Your task to perform on an android device: open chrome privacy settings Image 0: 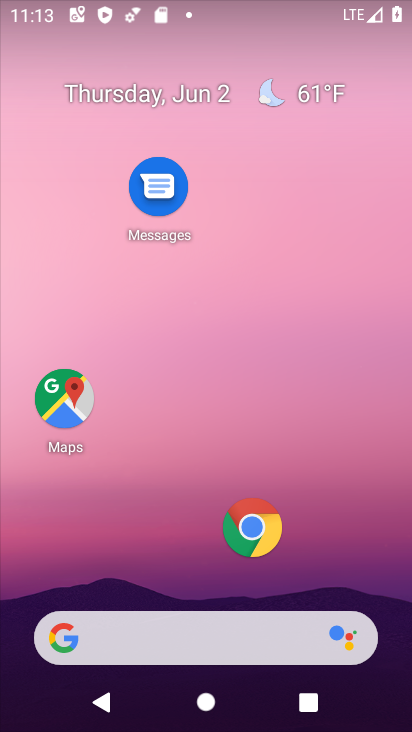
Step 0: click (251, 525)
Your task to perform on an android device: open chrome privacy settings Image 1: 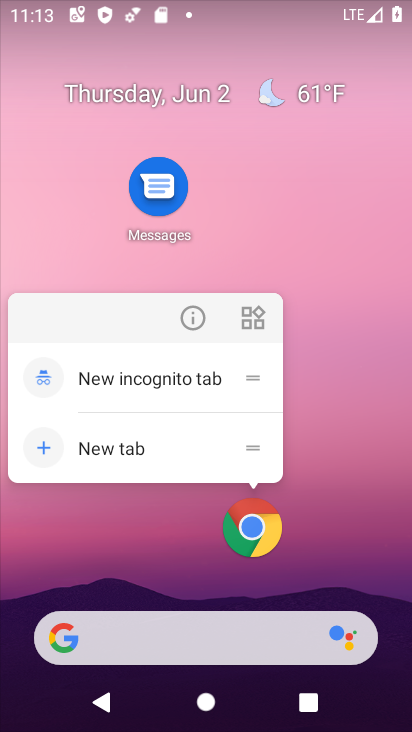
Step 1: click (252, 520)
Your task to perform on an android device: open chrome privacy settings Image 2: 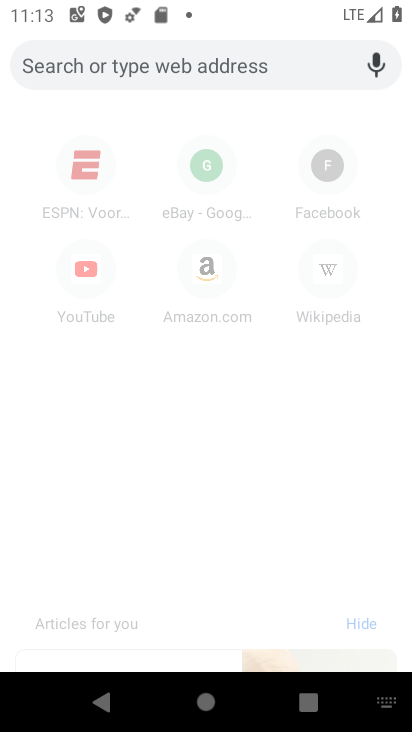
Step 2: press back button
Your task to perform on an android device: open chrome privacy settings Image 3: 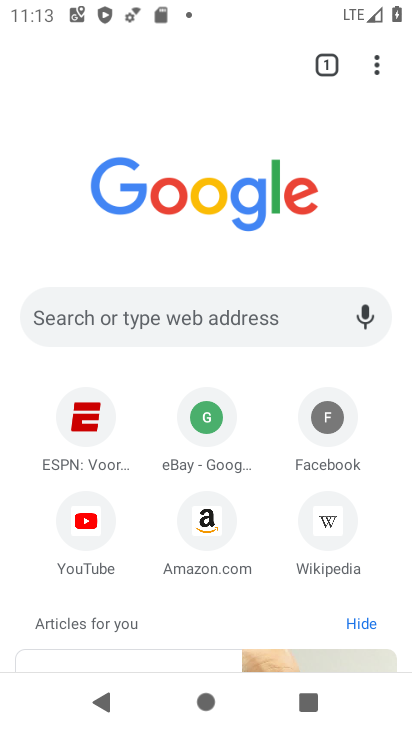
Step 3: click (379, 57)
Your task to perform on an android device: open chrome privacy settings Image 4: 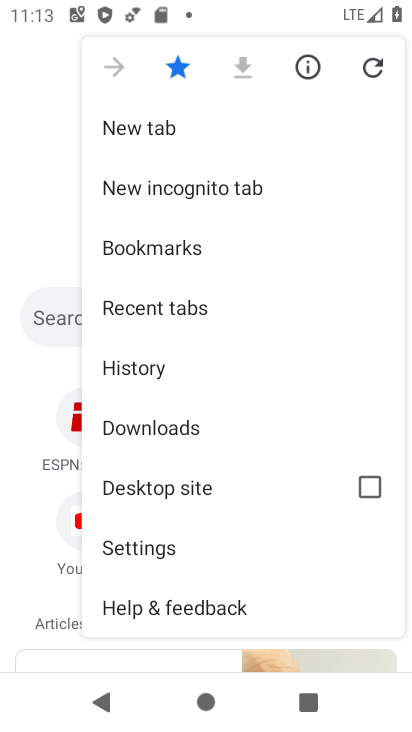
Step 4: click (191, 549)
Your task to perform on an android device: open chrome privacy settings Image 5: 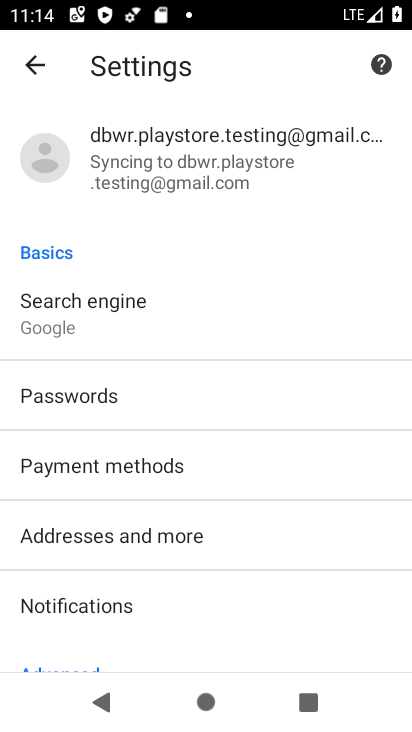
Step 5: drag from (216, 619) to (269, 74)
Your task to perform on an android device: open chrome privacy settings Image 6: 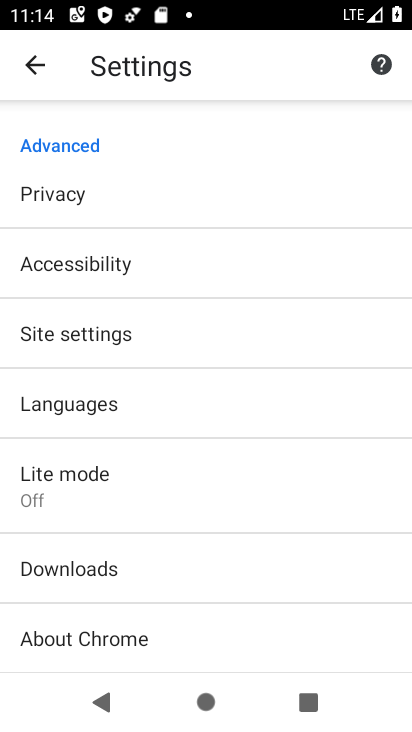
Step 6: click (107, 192)
Your task to perform on an android device: open chrome privacy settings Image 7: 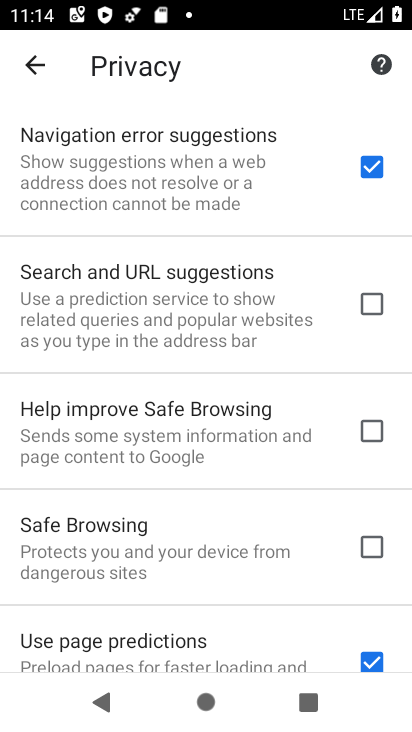
Step 7: task complete